Your task to perform on an android device: toggle show notifications on the lock screen Image 0: 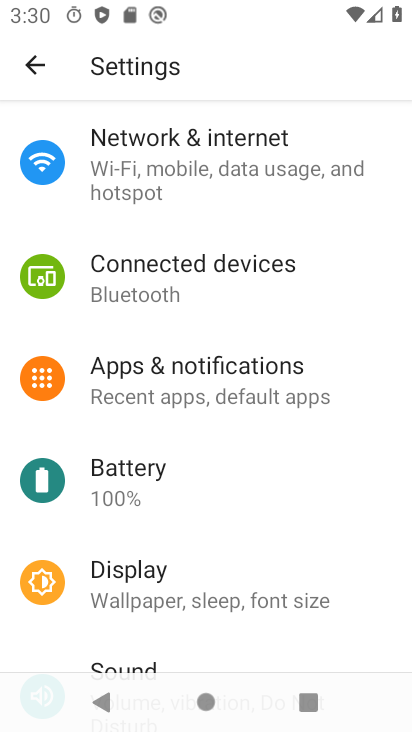
Step 0: click (192, 383)
Your task to perform on an android device: toggle show notifications on the lock screen Image 1: 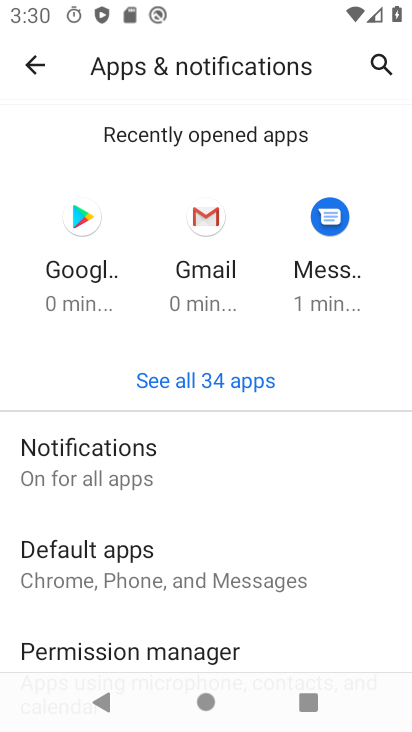
Step 1: click (143, 477)
Your task to perform on an android device: toggle show notifications on the lock screen Image 2: 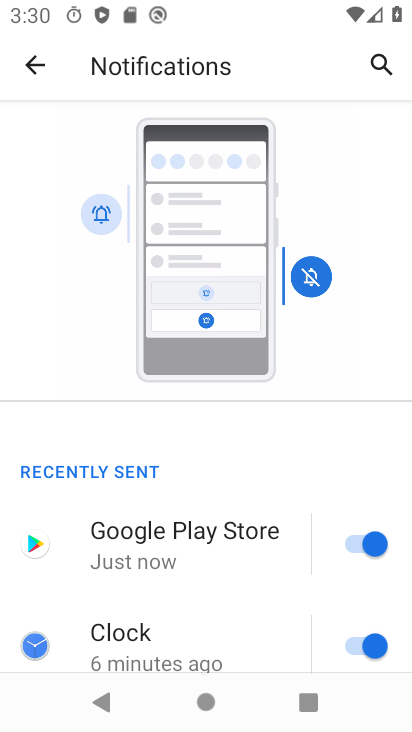
Step 2: drag from (231, 587) to (253, 185)
Your task to perform on an android device: toggle show notifications on the lock screen Image 3: 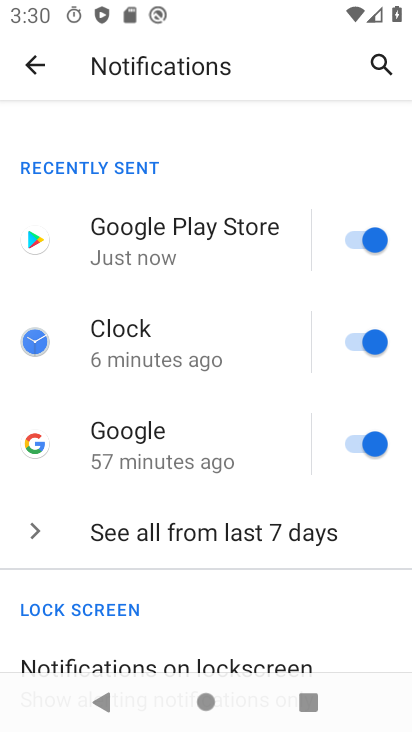
Step 3: drag from (221, 641) to (213, 142)
Your task to perform on an android device: toggle show notifications on the lock screen Image 4: 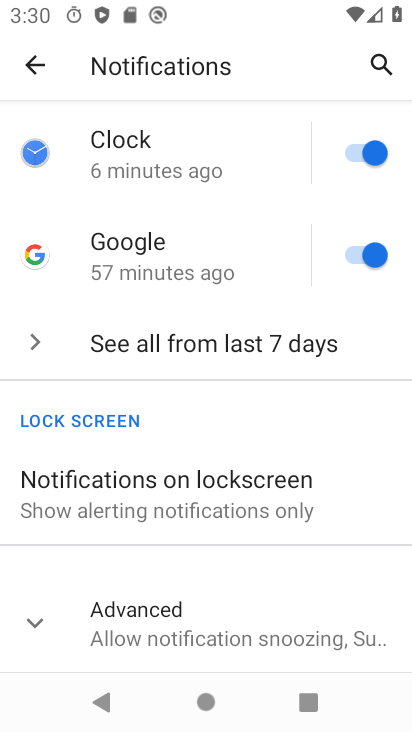
Step 4: click (184, 504)
Your task to perform on an android device: toggle show notifications on the lock screen Image 5: 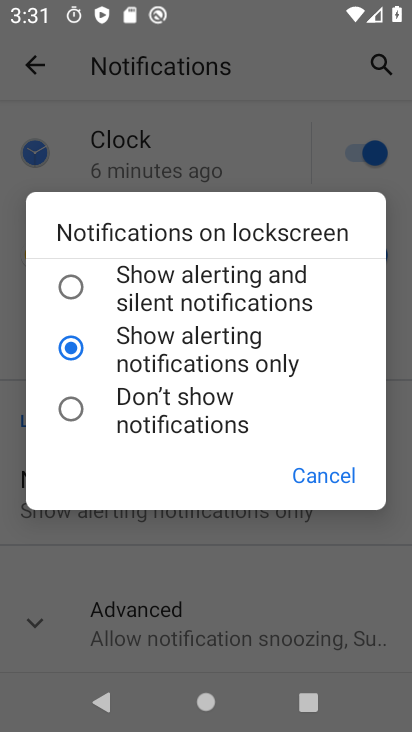
Step 5: click (165, 278)
Your task to perform on an android device: toggle show notifications on the lock screen Image 6: 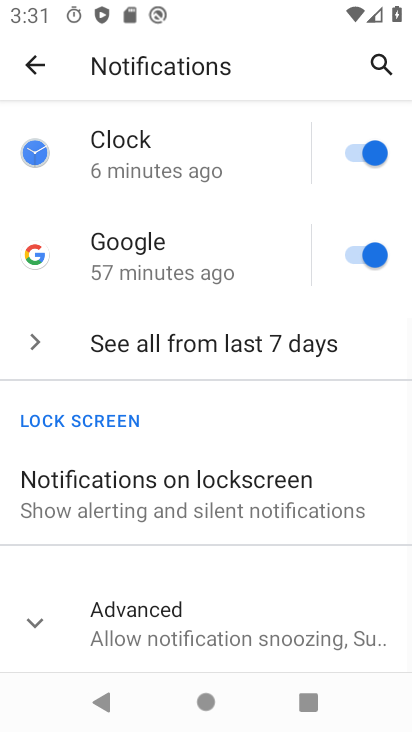
Step 6: task complete